Your task to perform on an android device: Add logitech g933 to the cart on ebay.com, then select checkout. Image 0: 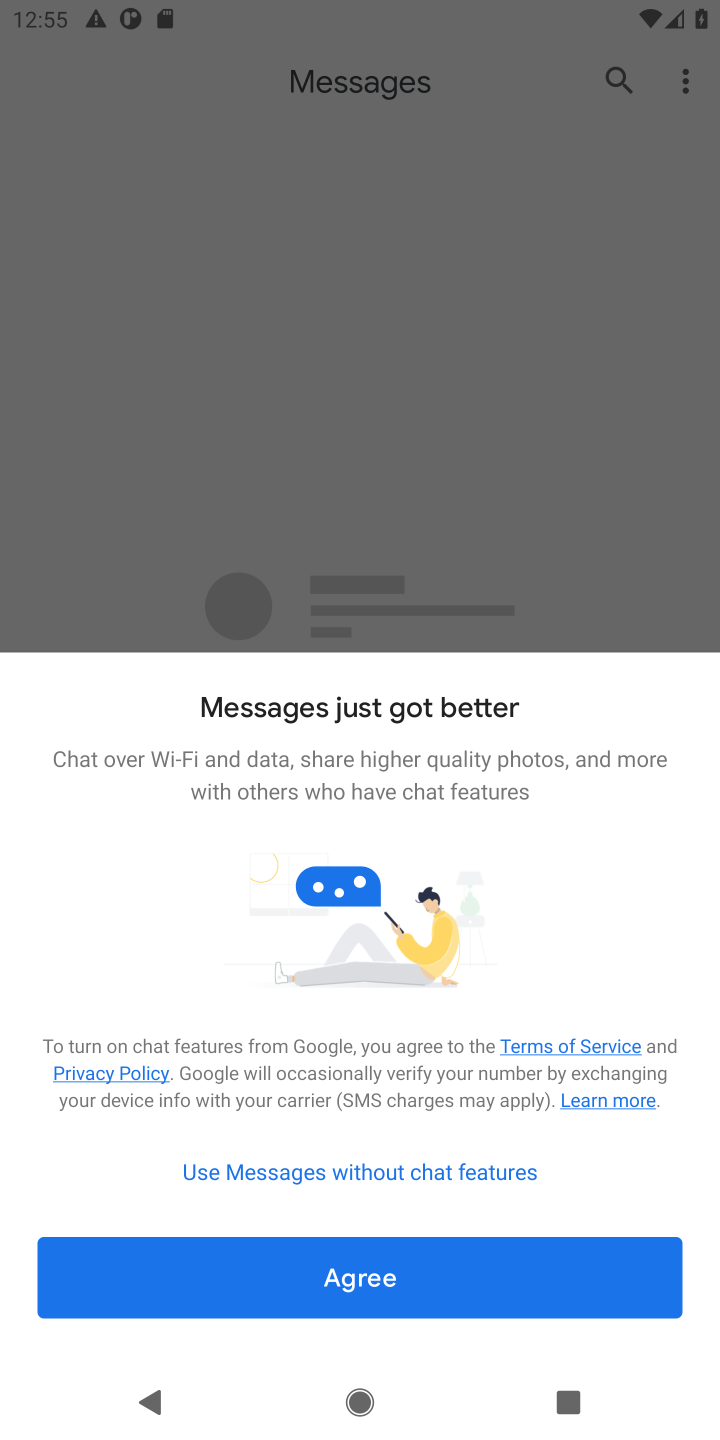
Step 0: click (495, 1132)
Your task to perform on an android device: Add logitech g933 to the cart on ebay.com, then select checkout. Image 1: 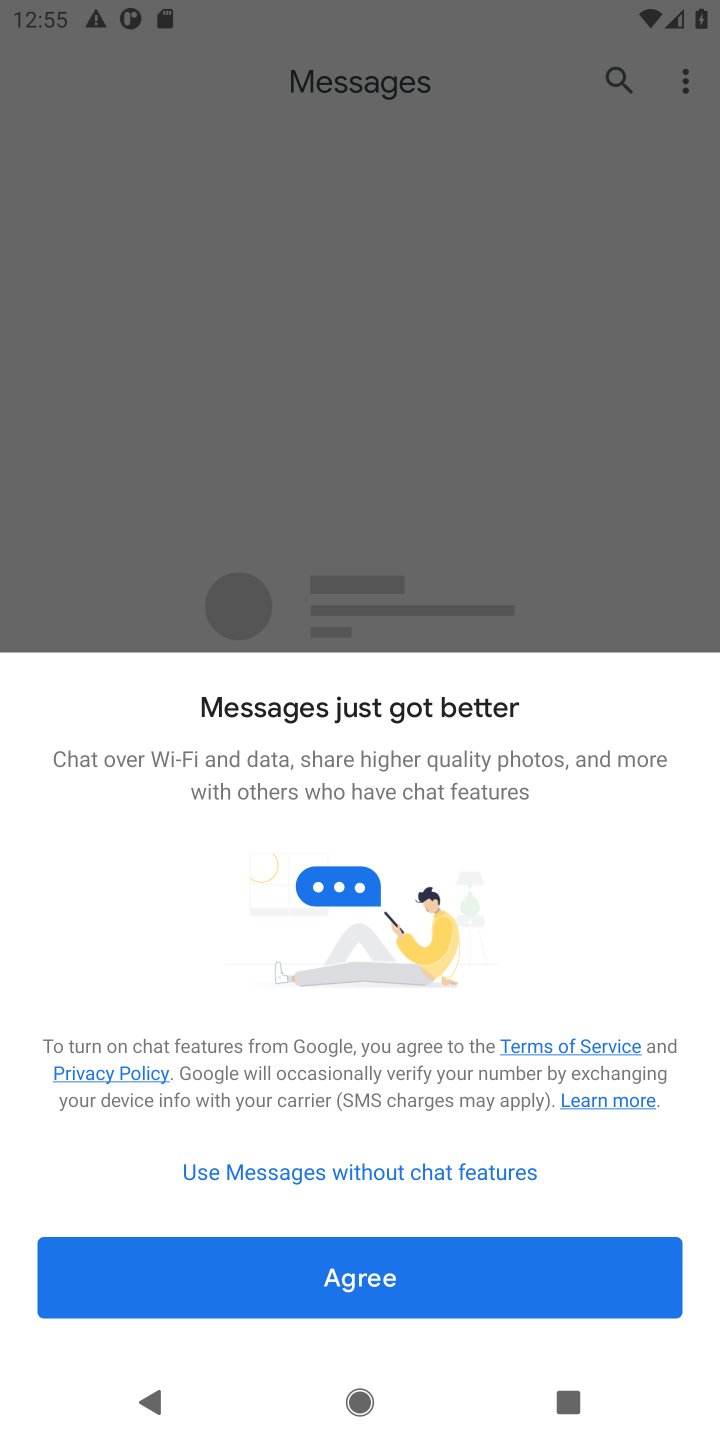
Step 1: press home button
Your task to perform on an android device: Add logitech g933 to the cart on ebay.com, then select checkout. Image 2: 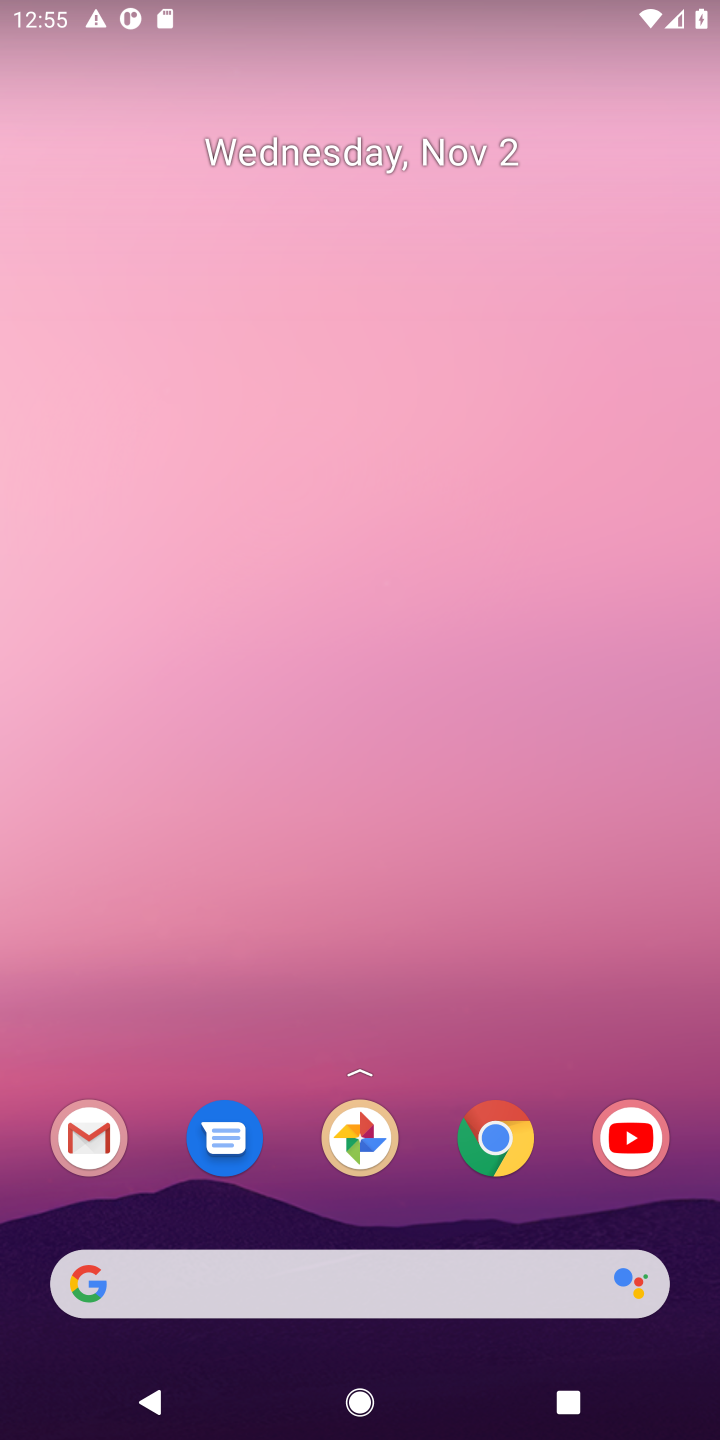
Step 2: click (494, 1156)
Your task to perform on an android device: Add logitech g933 to the cart on ebay.com, then select checkout. Image 3: 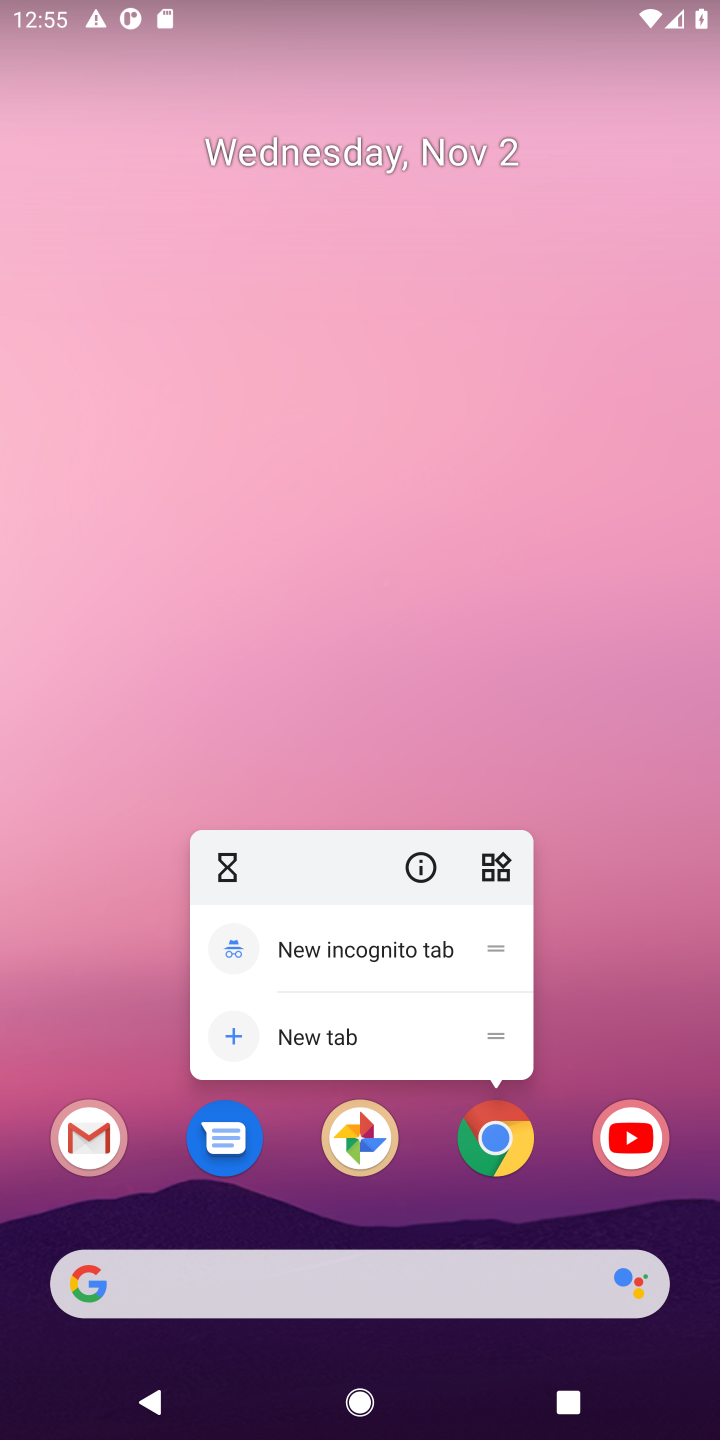
Step 3: click (496, 1111)
Your task to perform on an android device: Add logitech g933 to the cart on ebay.com, then select checkout. Image 4: 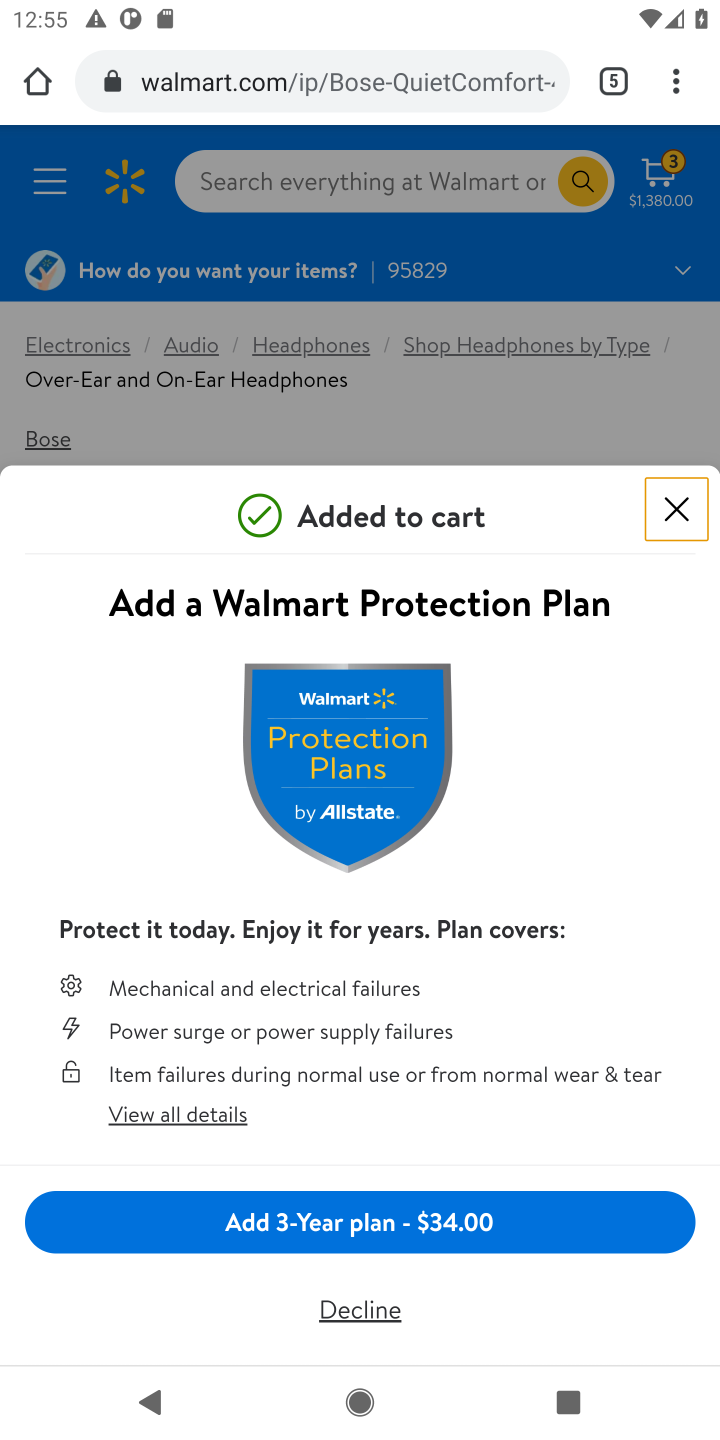
Step 4: click (638, 674)
Your task to perform on an android device: Add logitech g933 to the cart on ebay.com, then select checkout. Image 5: 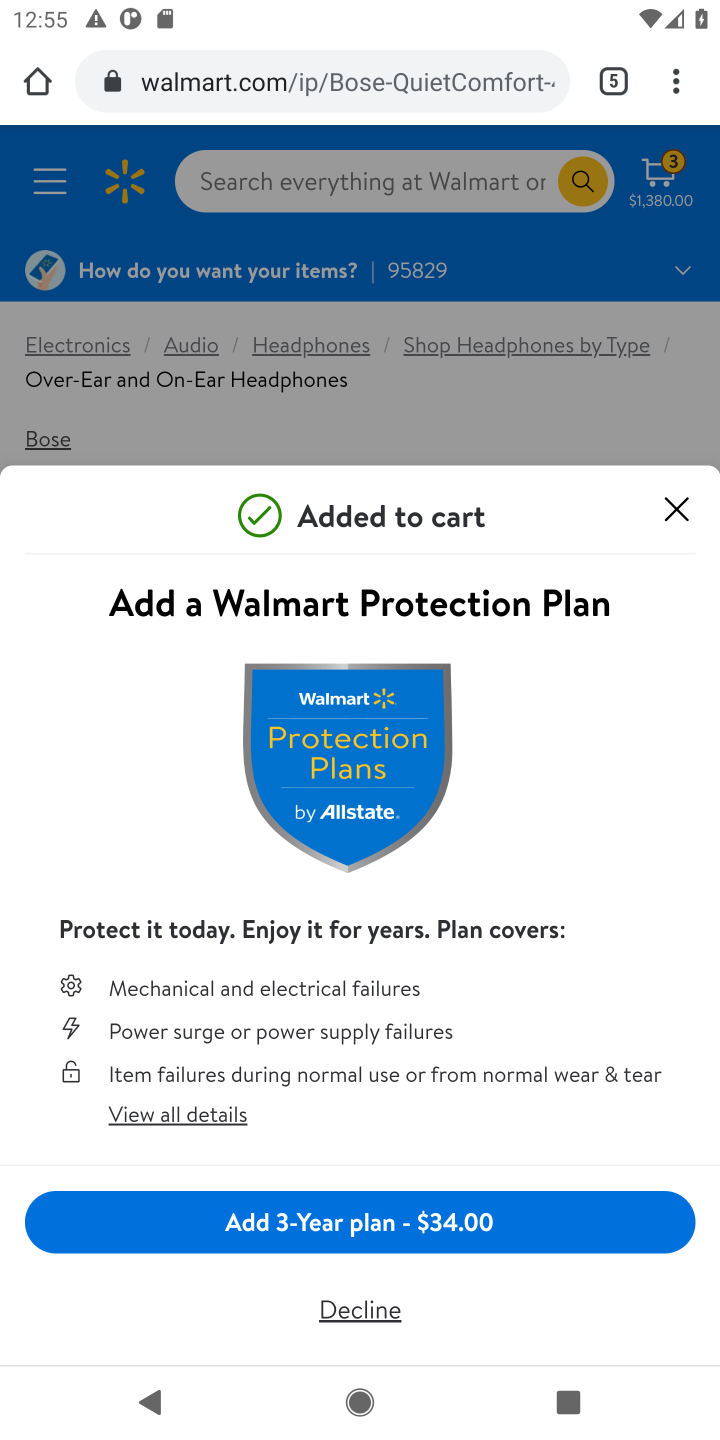
Step 5: click (675, 501)
Your task to perform on an android device: Add logitech g933 to the cart on ebay.com, then select checkout. Image 6: 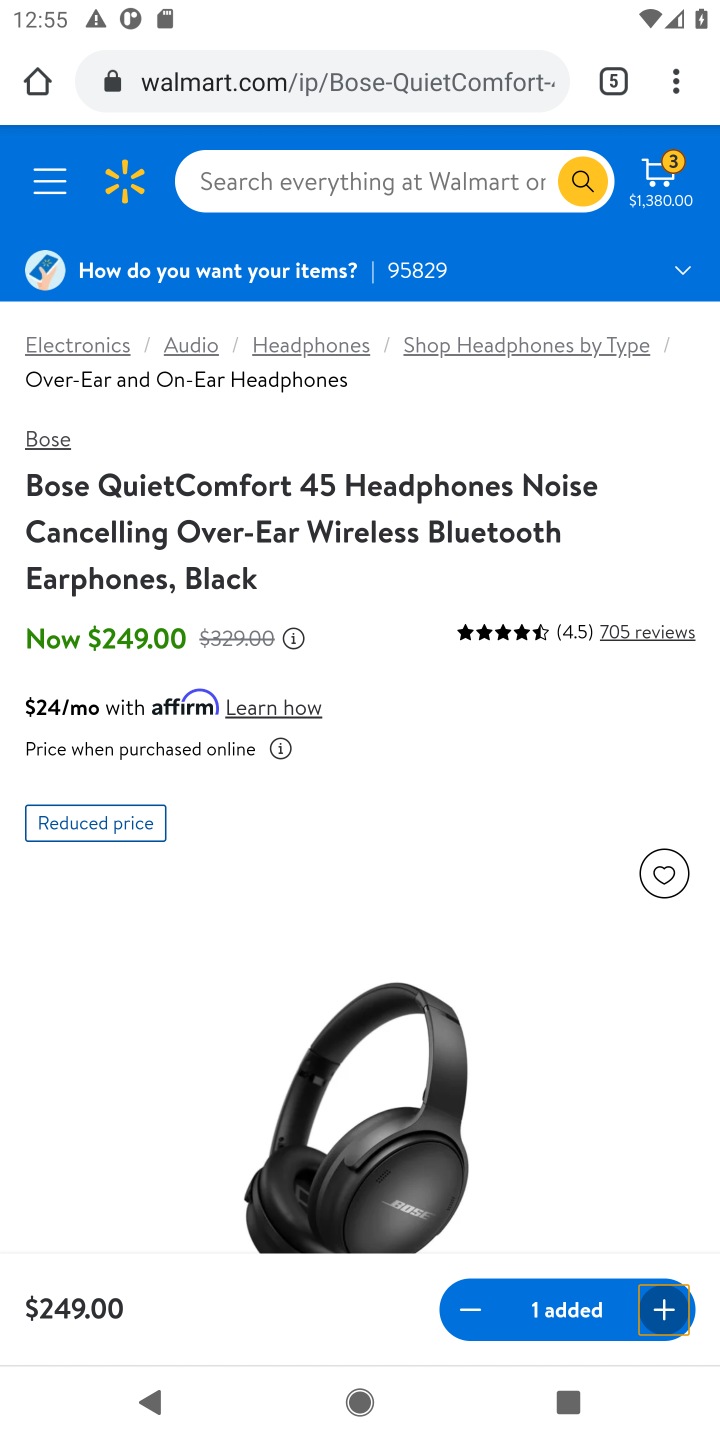
Step 6: click (606, 85)
Your task to perform on an android device: Add logitech g933 to the cart on ebay.com, then select checkout. Image 7: 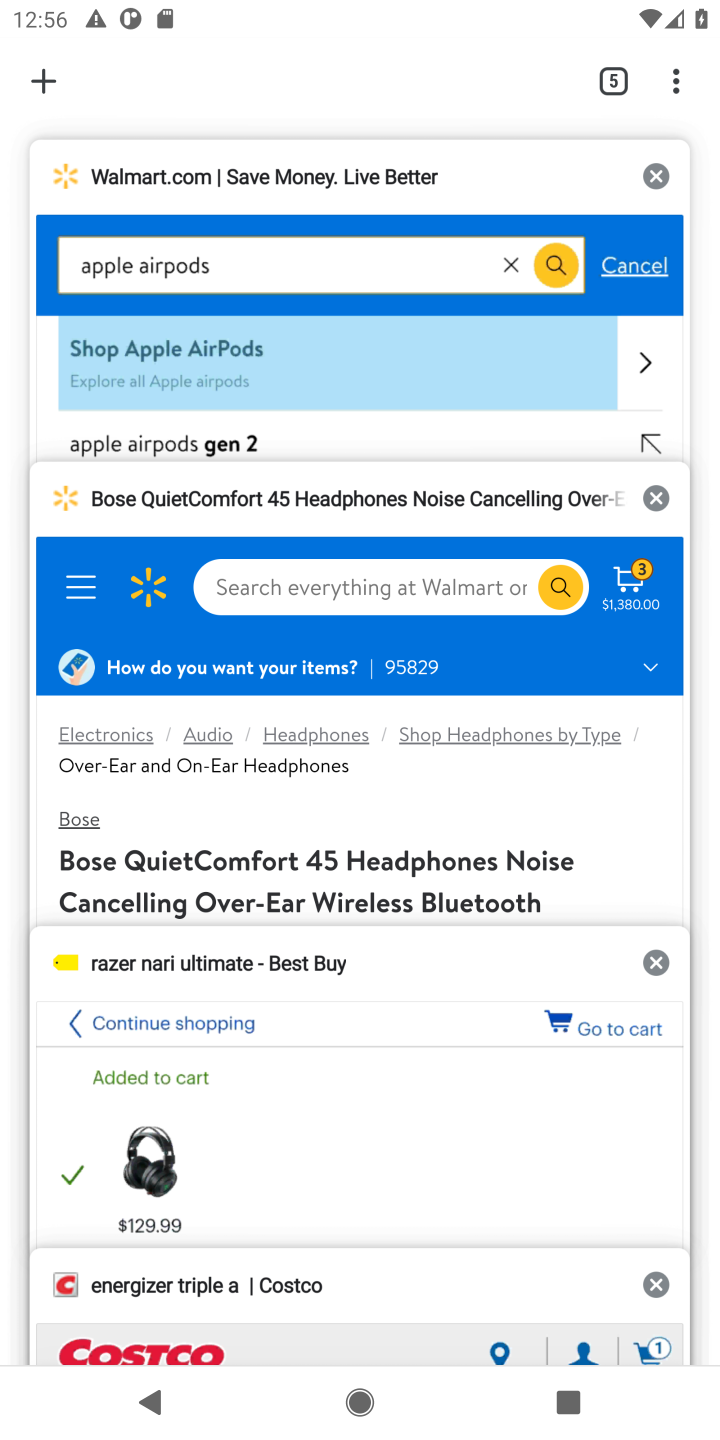
Step 7: click (35, 74)
Your task to perform on an android device: Add logitech g933 to the cart on ebay.com, then select checkout. Image 8: 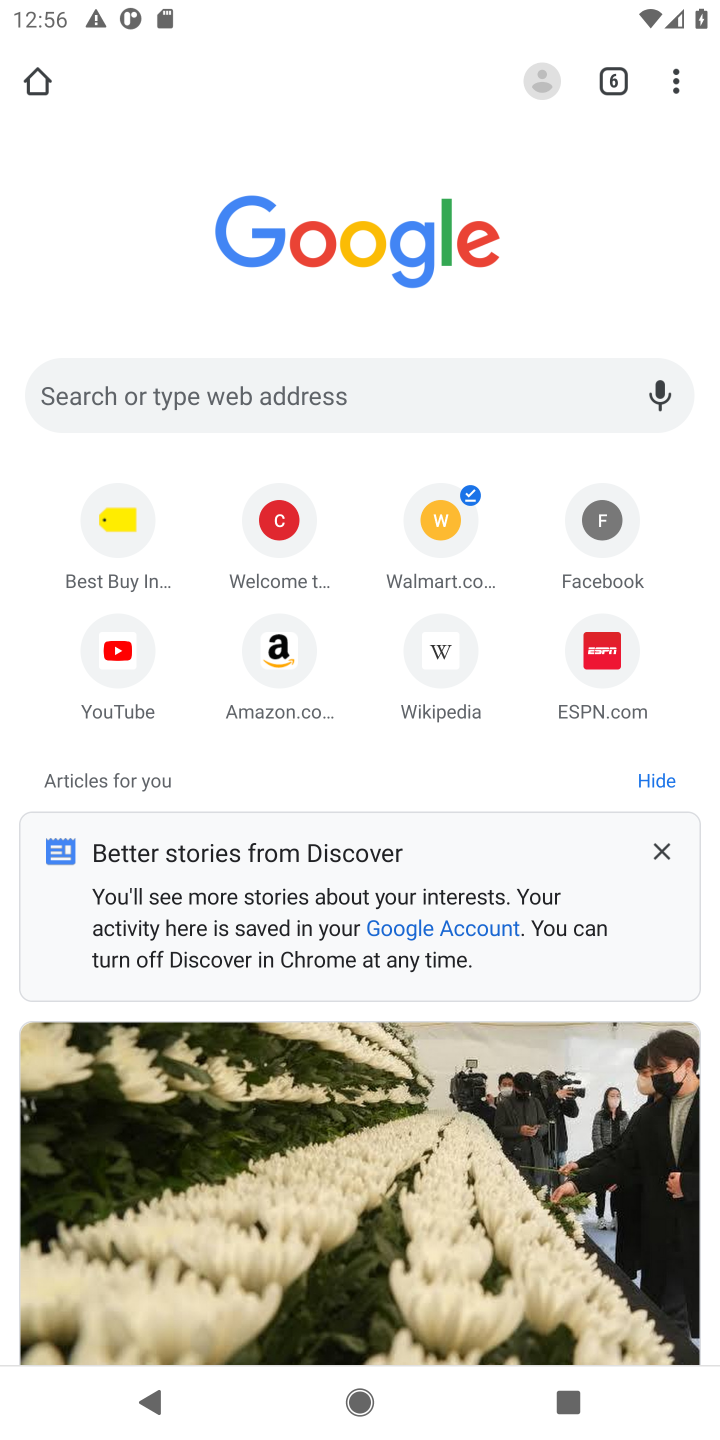
Step 8: click (399, 407)
Your task to perform on an android device: Add logitech g933 to the cart on ebay.com, then select checkout. Image 9: 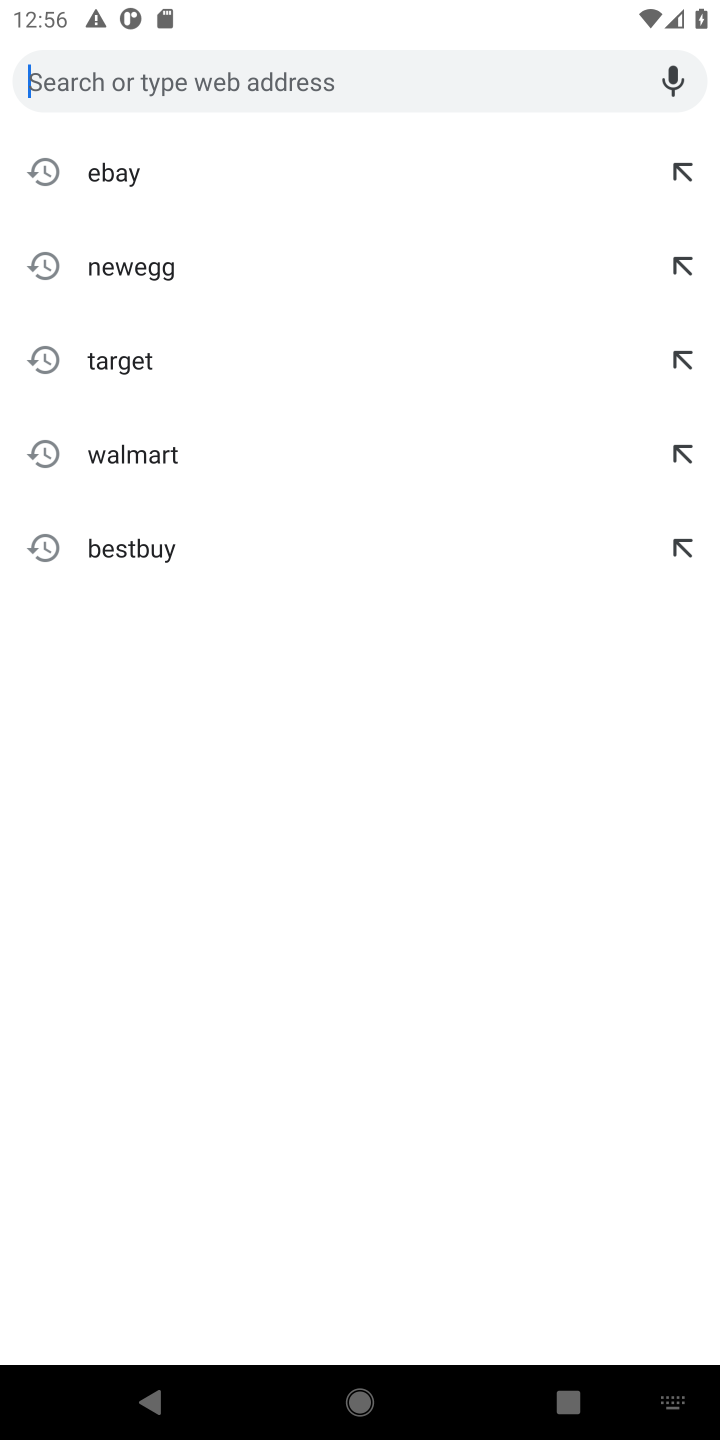
Step 9: type "ebay"
Your task to perform on an android device: Add logitech g933 to the cart on ebay.com, then select checkout. Image 10: 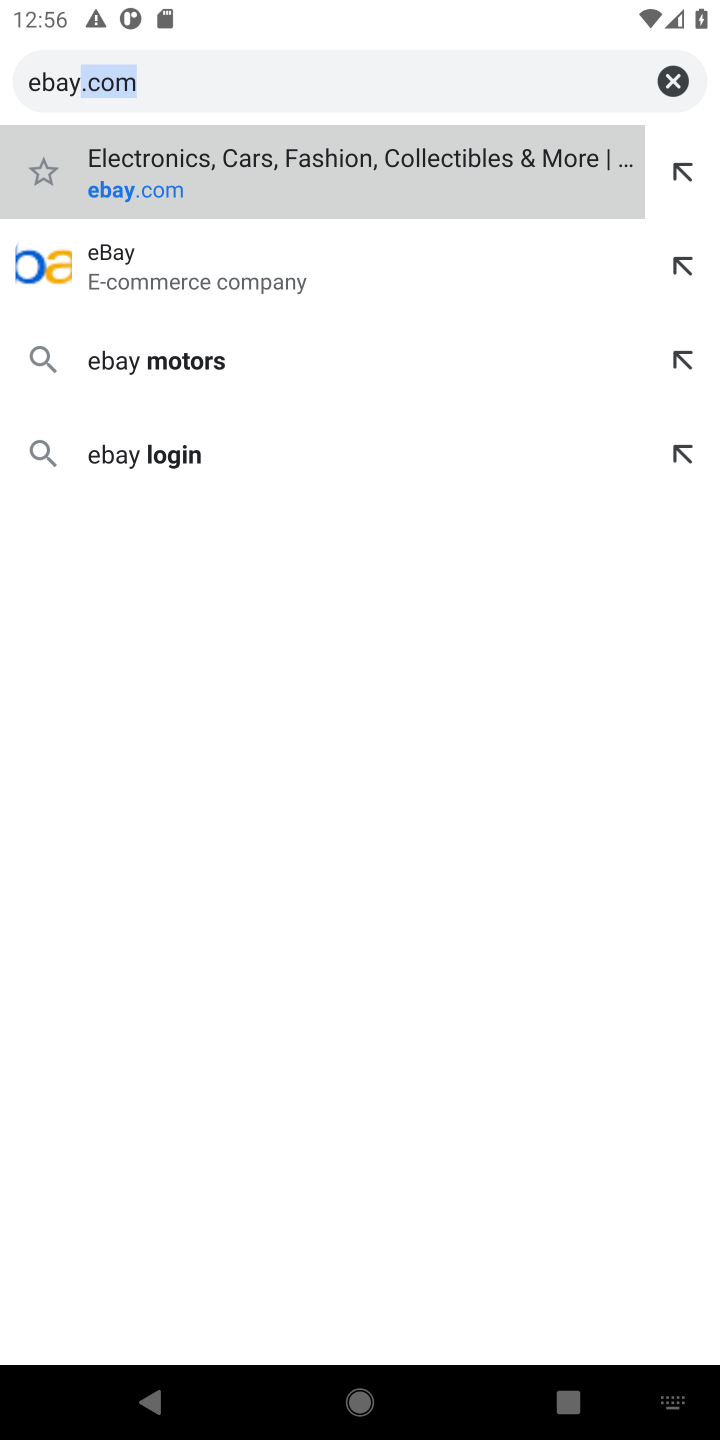
Step 10: click (142, 173)
Your task to perform on an android device: Add logitech g933 to the cart on ebay.com, then select checkout. Image 11: 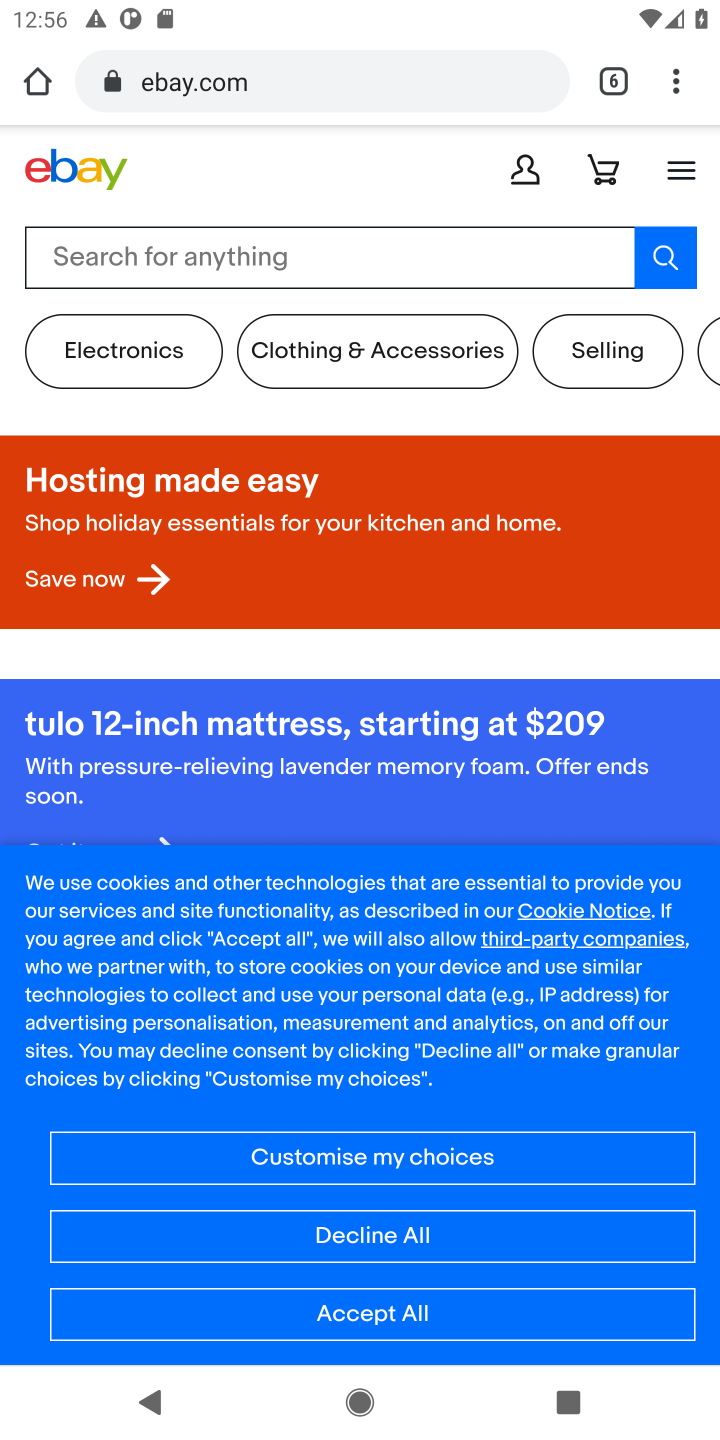
Step 11: click (407, 1227)
Your task to perform on an android device: Add logitech g933 to the cart on ebay.com, then select checkout. Image 12: 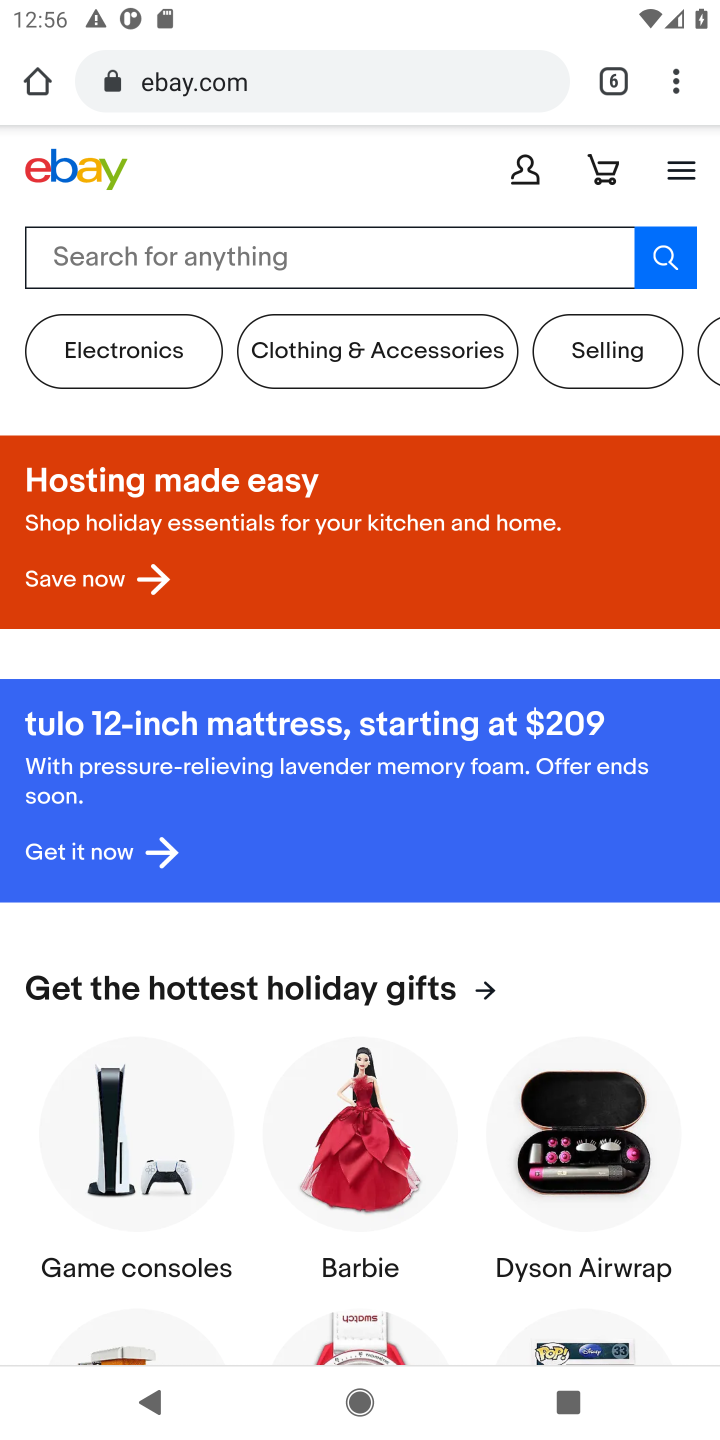
Step 12: click (198, 249)
Your task to perform on an android device: Add logitech g933 to the cart on ebay.com, then select checkout. Image 13: 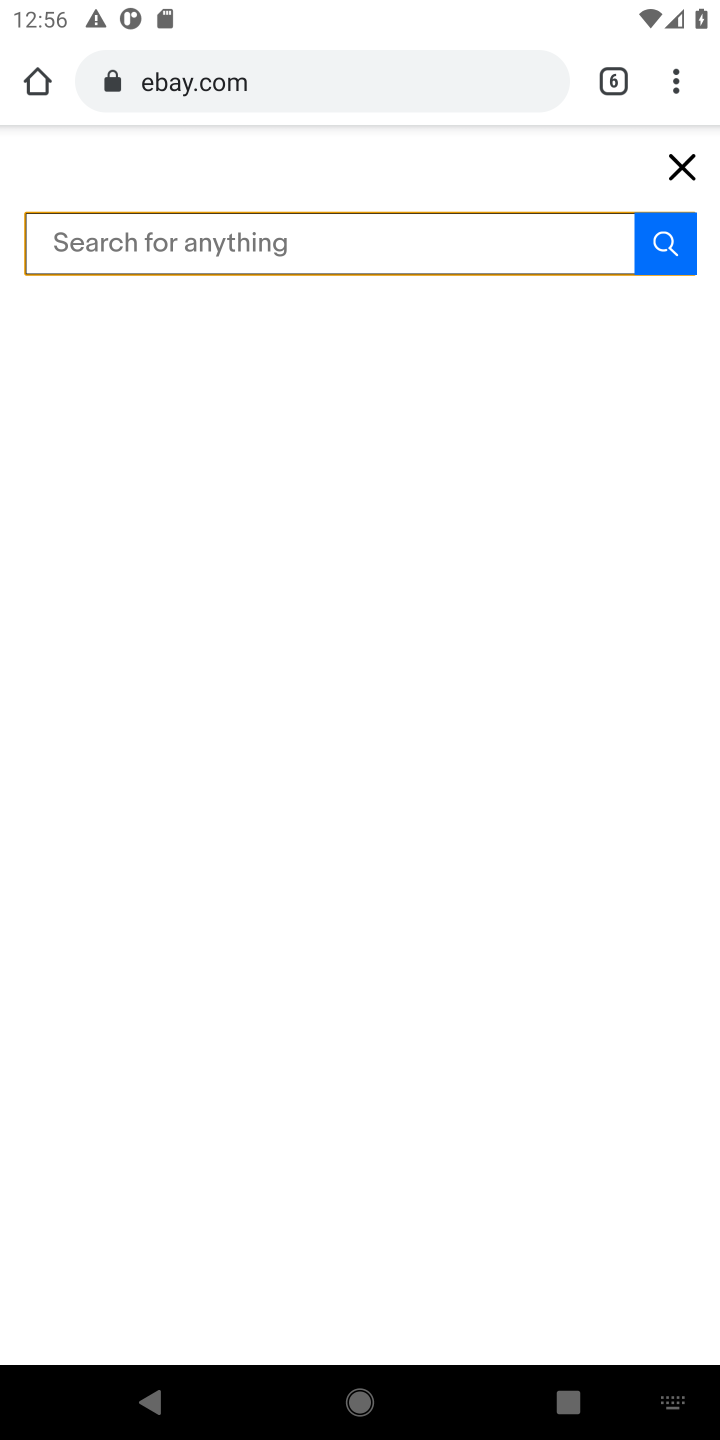
Step 13: type "logitech g933"
Your task to perform on an android device: Add logitech g933 to the cart on ebay.com, then select checkout. Image 14: 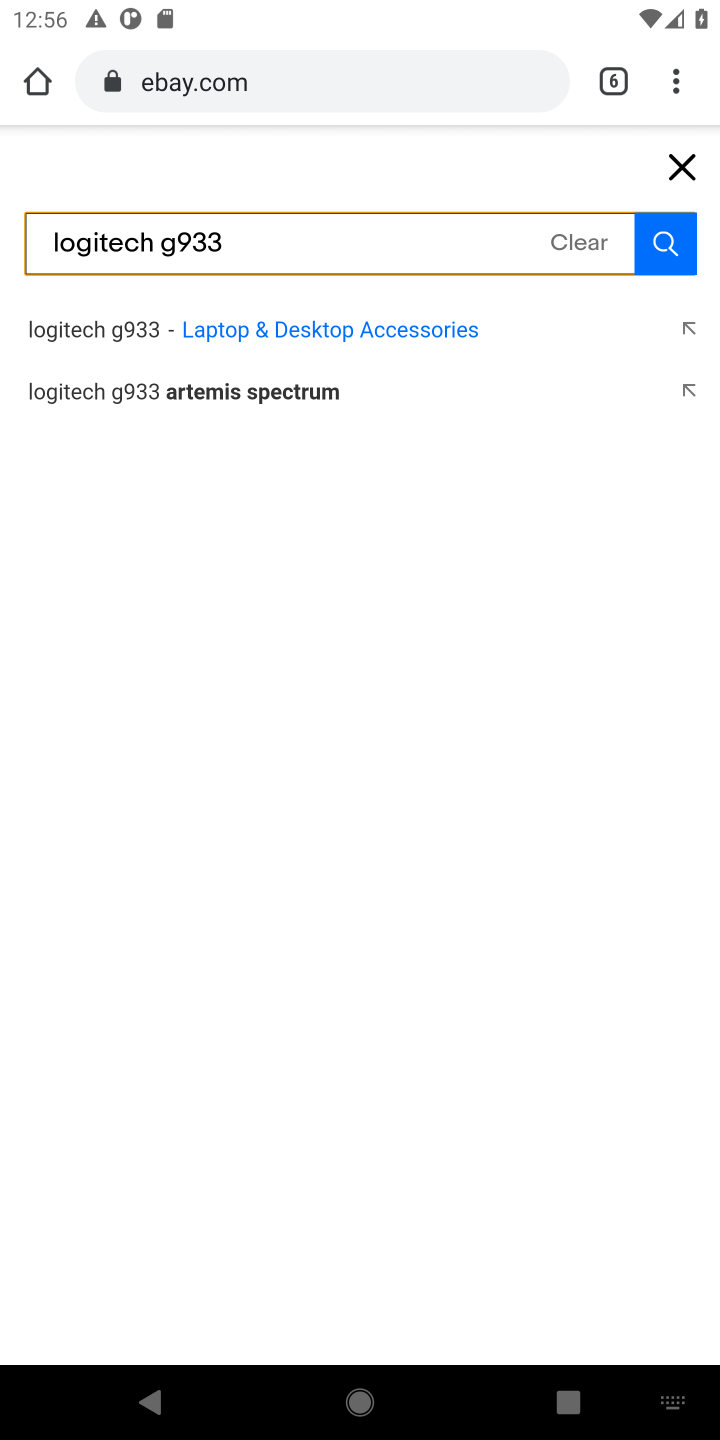
Step 14: click (129, 327)
Your task to perform on an android device: Add logitech g933 to the cart on ebay.com, then select checkout. Image 15: 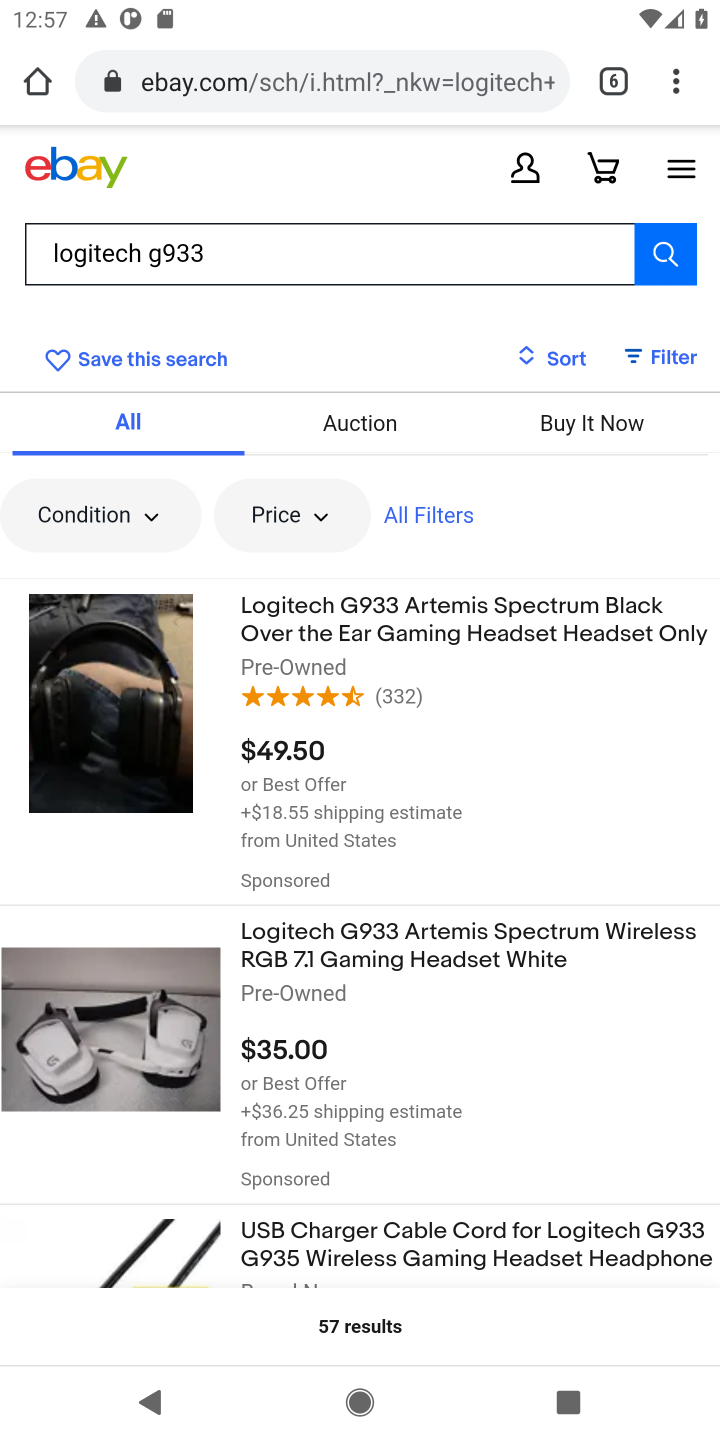
Step 15: click (478, 617)
Your task to perform on an android device: Add logitech g933 to the cart on ebay.com, then select checkout. Image 16: 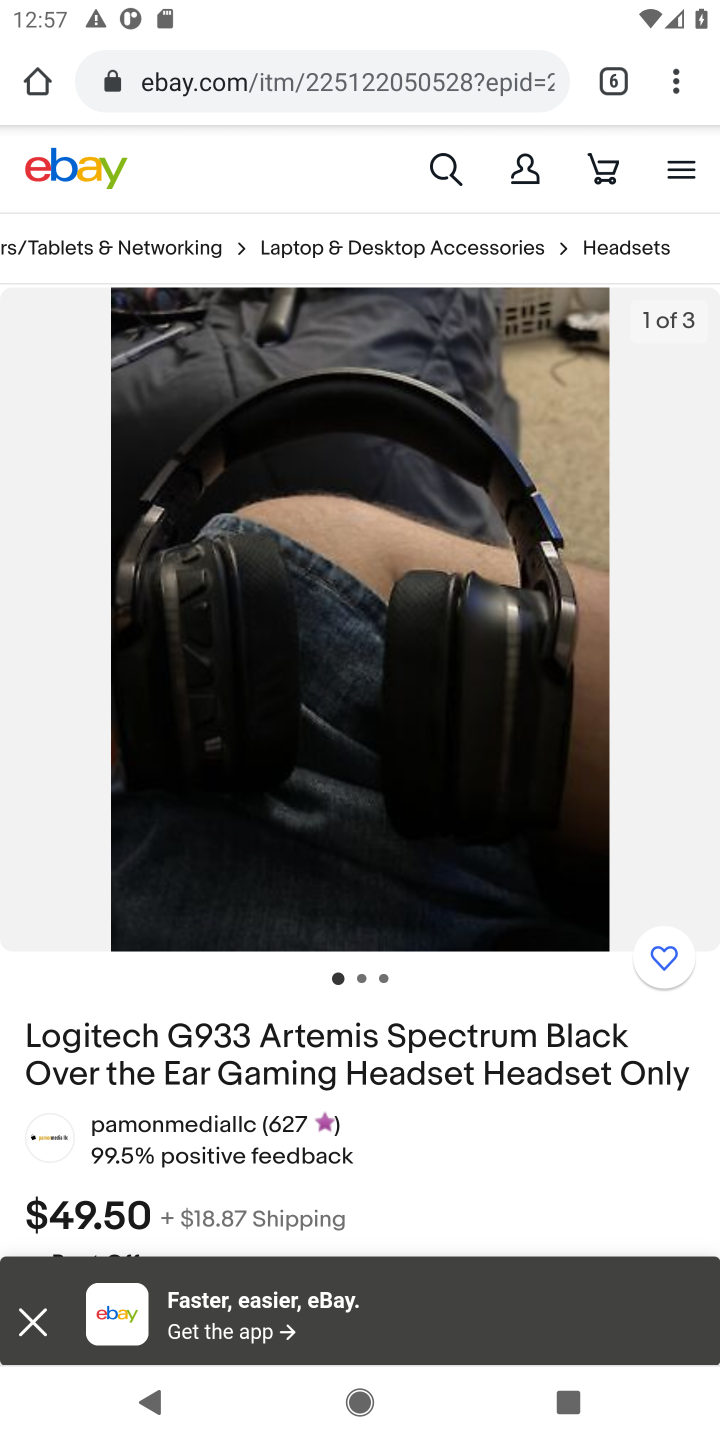
Step 16: drag from (472, 1206) to (651, 433)
Your task to perform on an android device: Add logitech g933 to the cart on ebay.com, then select checkout. Image 17: 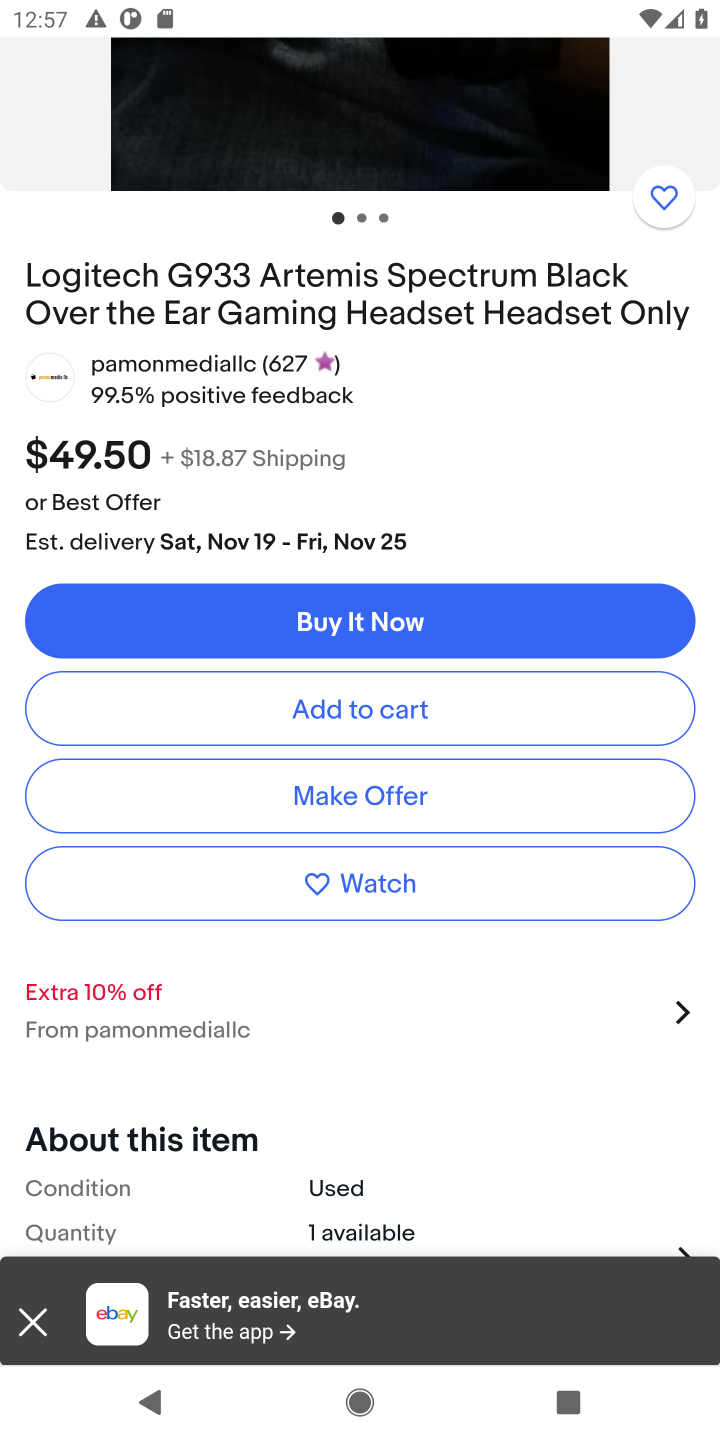
Step 17: click (31, 1334)
Your task to perform on an android device: Add logitech g933 to the cart on ebay.com, then select checkout. Image 18: 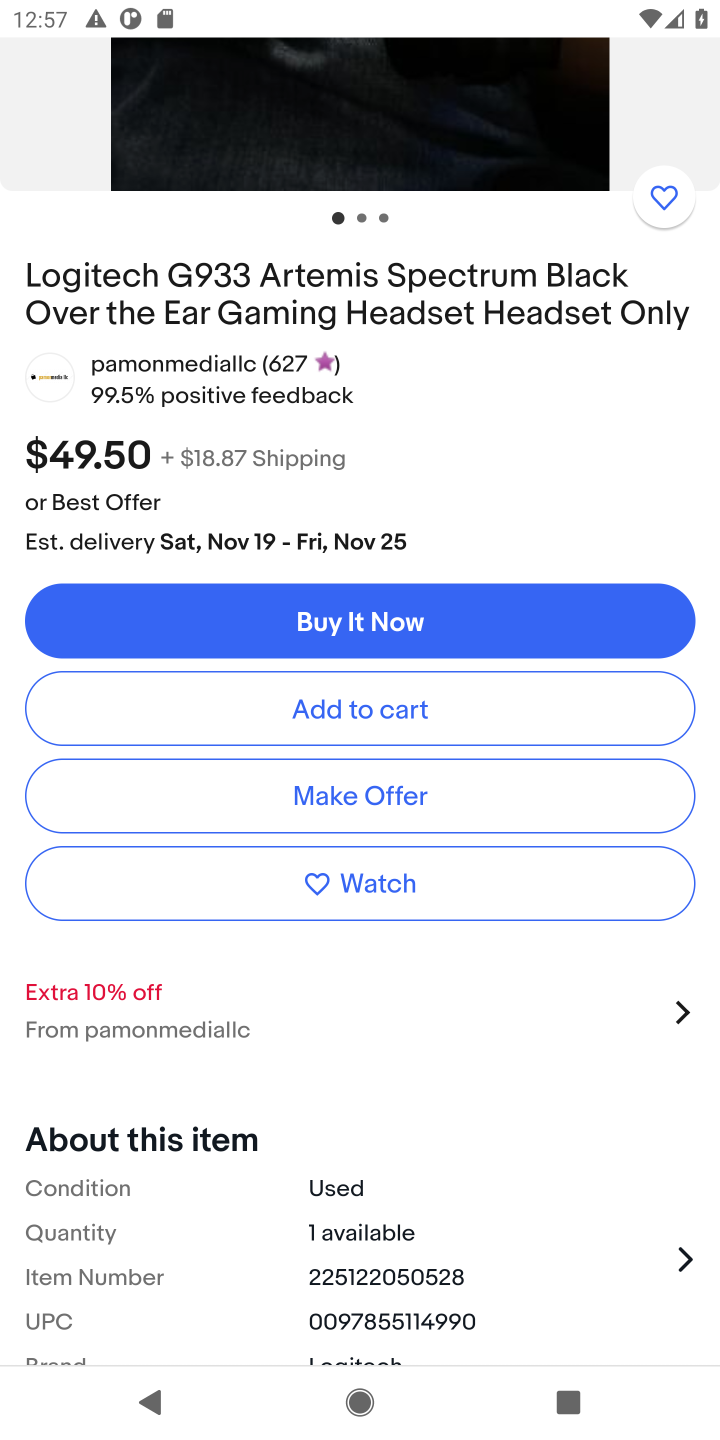
Step 18: click (340, 729)
Your task to perform on an android device: Add logitech g933 to the cart on ebay.com, then select checkout. Image 19: 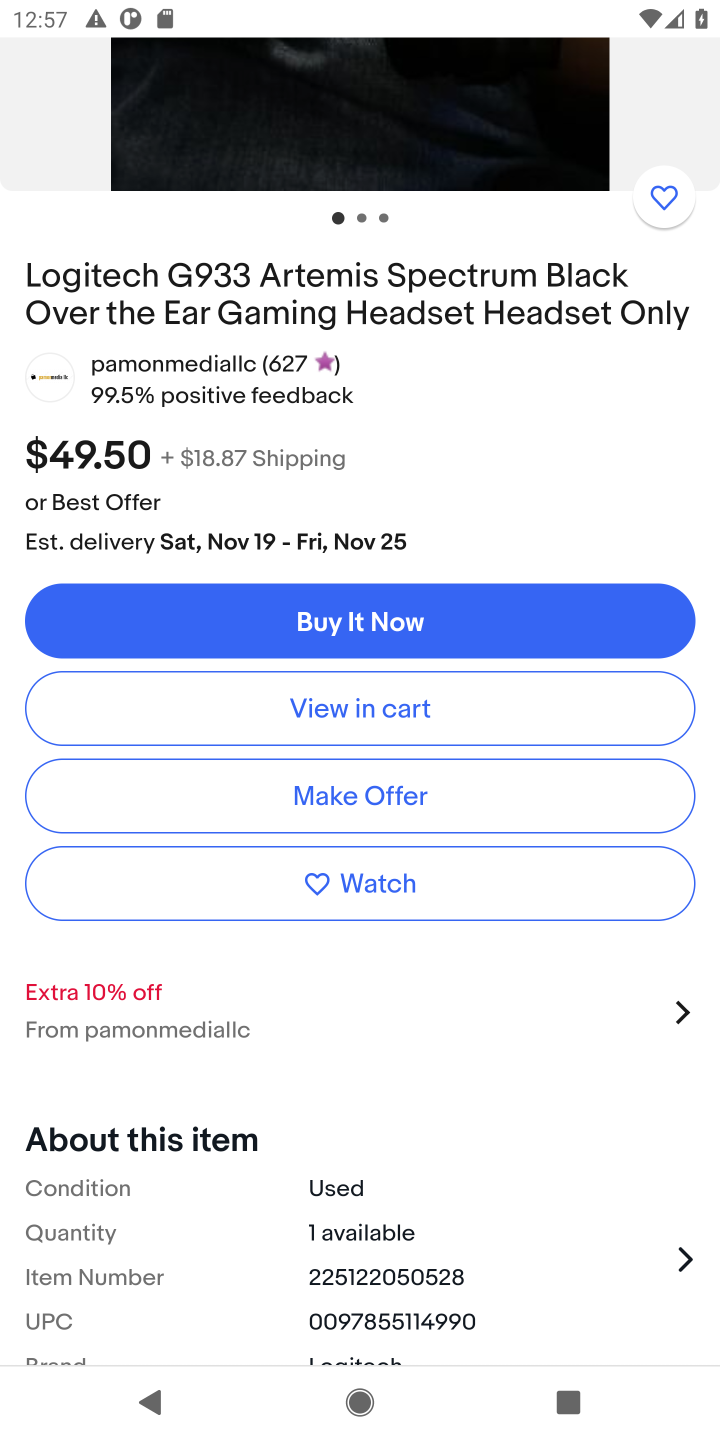
Step 19: click (385, 715)
Your task to perform on an android device: Add logitech g933 to the cart on ebay.com, then select checkout. Image 20: 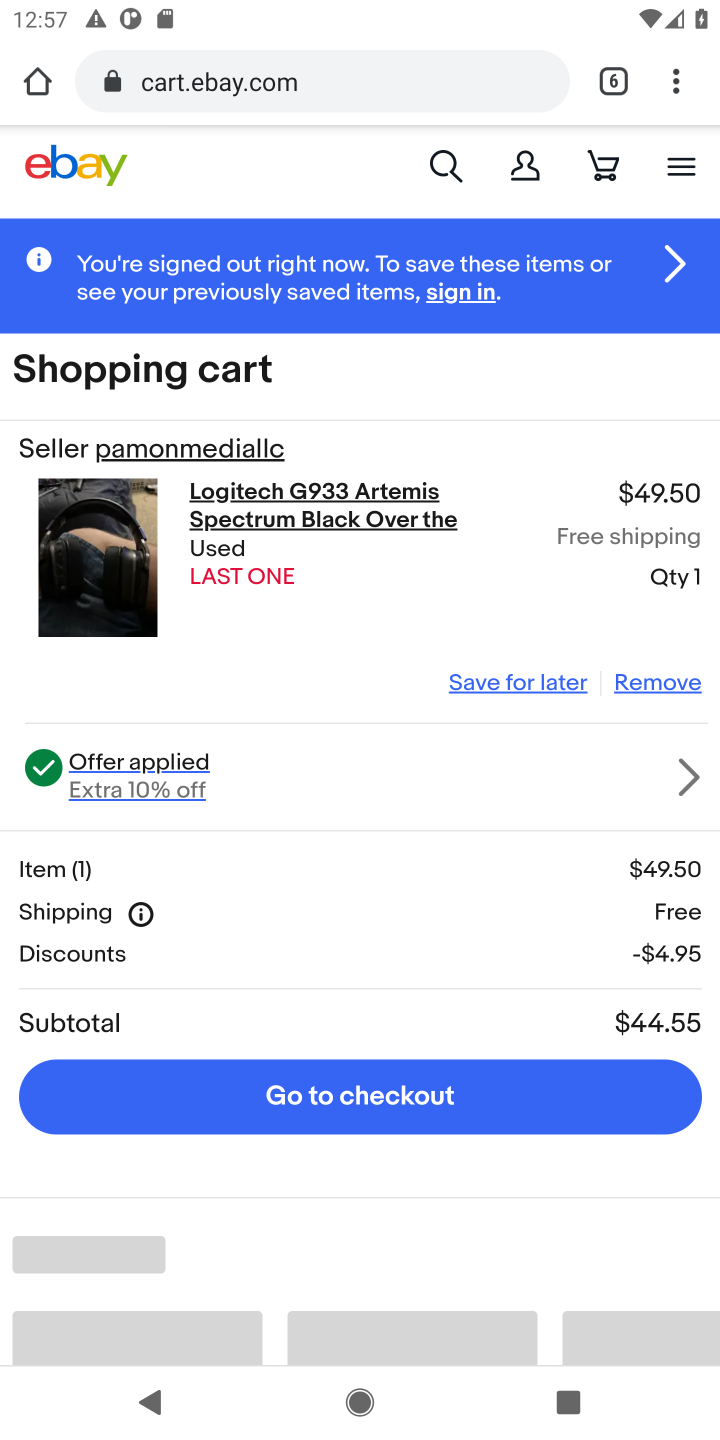
Step 20: click (414, 1093)
Your task to perform on an android device: Add logitech g933 to the cart on ebay.com, then select checkout. Image 21: 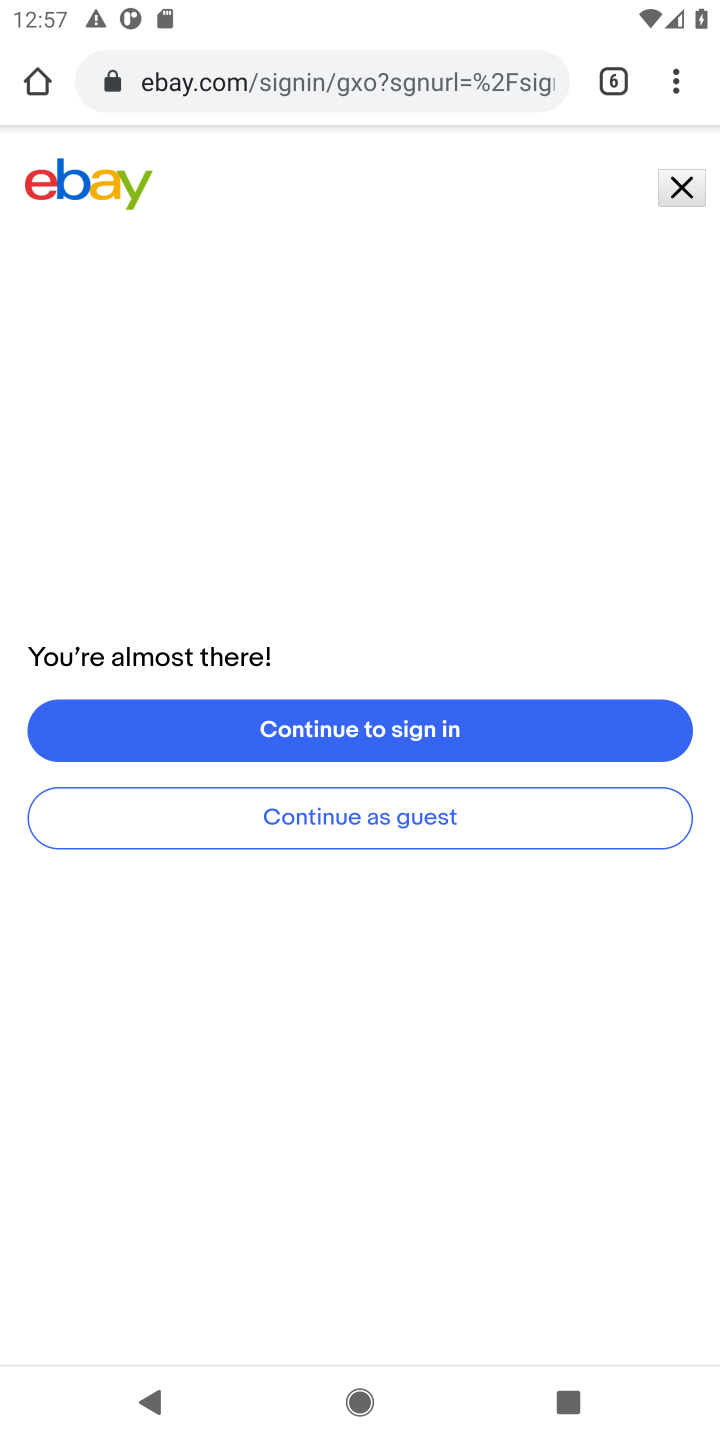
Step 21: task complete